Your task to perform on an android device: Go to display settings Image 0: 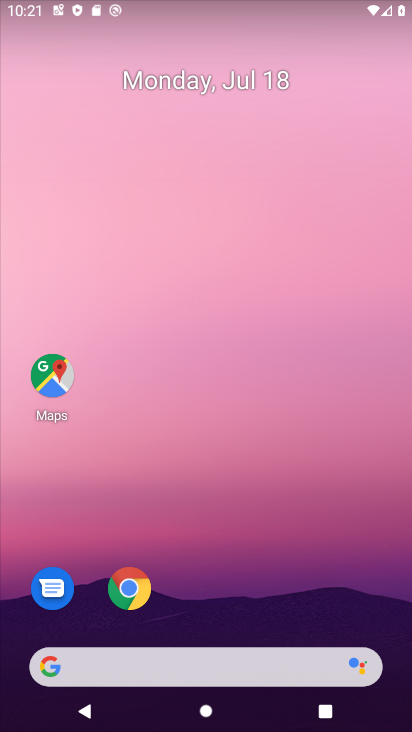
Step 0: drag from (240, 730) to (240, 233)
Your task to perform on an android device: Go to display settings Image 1: 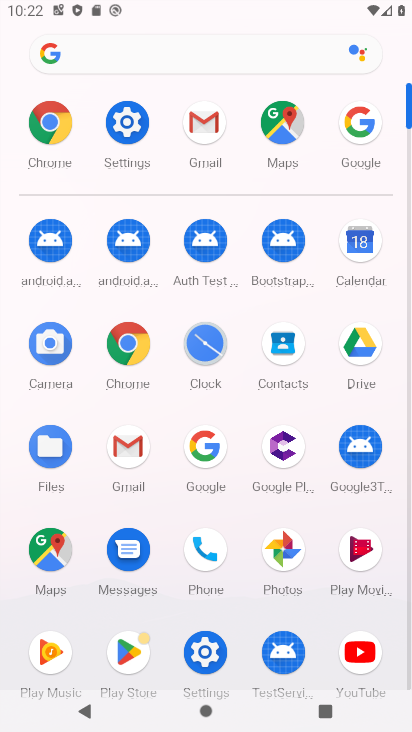
Step 1: click (122, 129)
Your task to perform on an android device: Go to display settings Image 2: 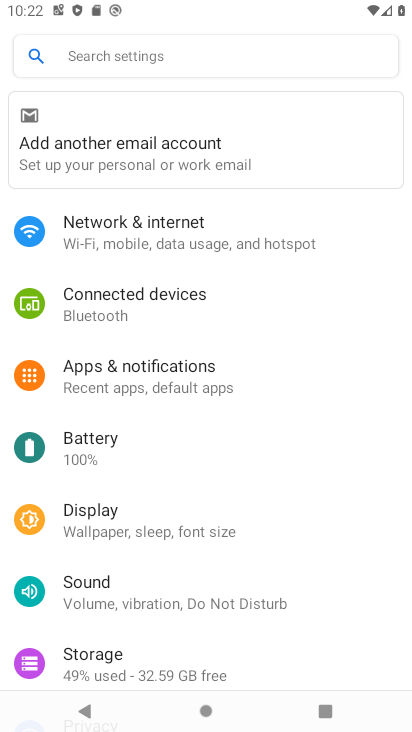
Step 2: click (101, 517)
Your task to perform on an android device: Go to display settings Image 3: 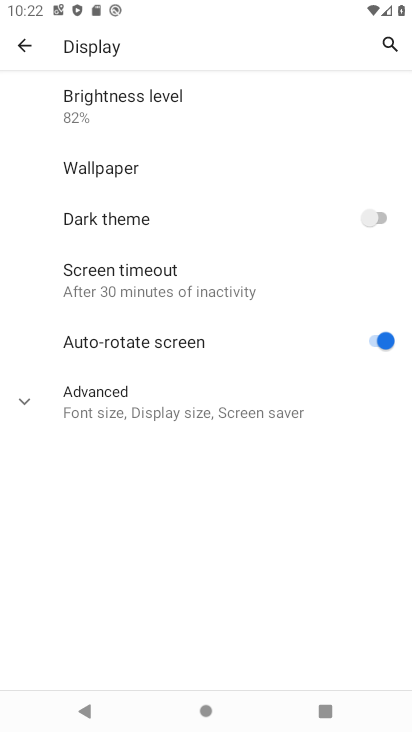
Step 3: task complete